Your task to perform on an android device: check storage Image 0: 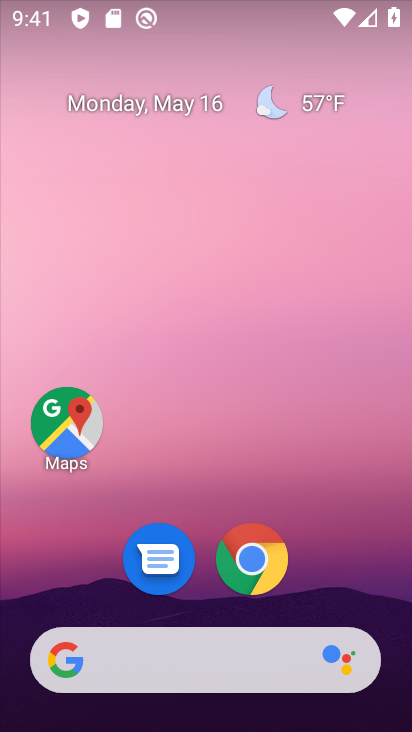
Step 0: drag from (327, 573) to (308, 93)
Your task to perform on an android device: check storage Image 1: 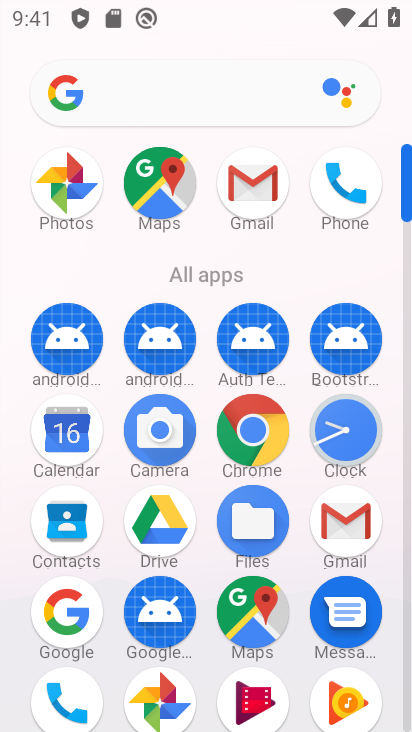
Step 1: drag from (301, 630) to (316, 218)
Your task to perform on an android device: check storage Image 2: 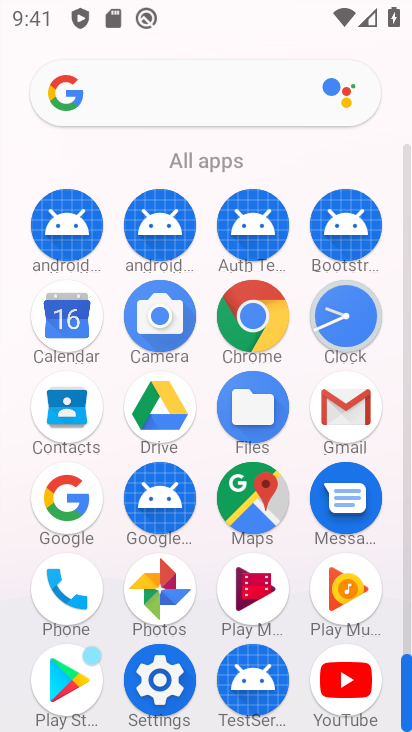
Step 2: click (172, 641)
Your task to perform on an android device: check storage Image 3: 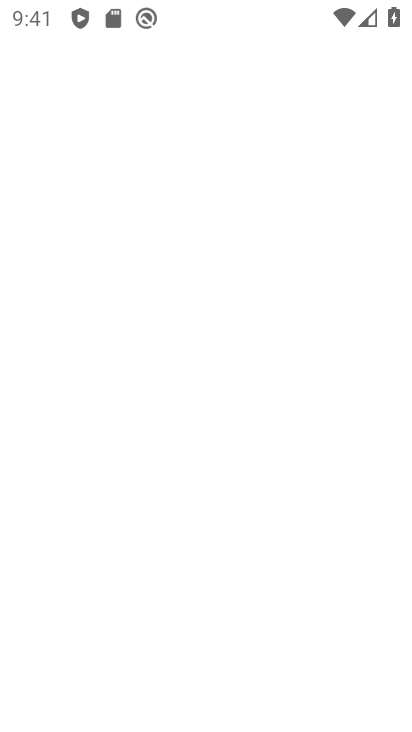
Step 3: press home button
Your task to perform on an android device: check storage Image 4: 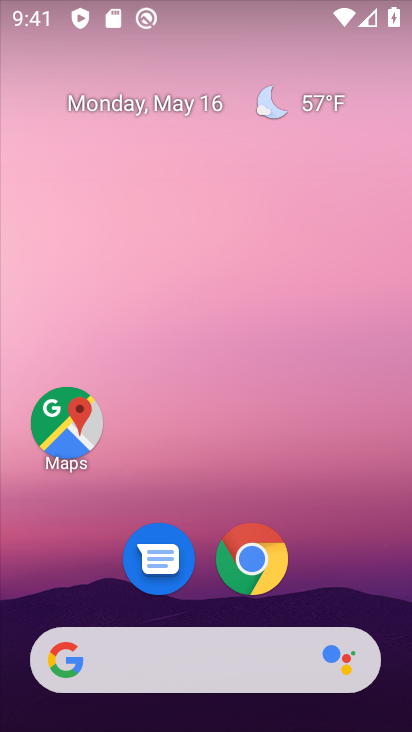
Step 4: drag from (345, 571) to (321, 162)
Your task to perform on an android device: check storage Image 5: 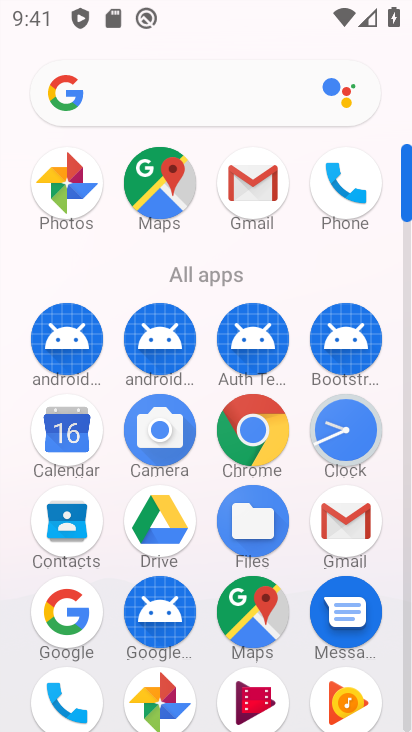
Step 5: drag from (211, 632) to (223, 285)
Your task to perform on an android device: check storage Image 6: 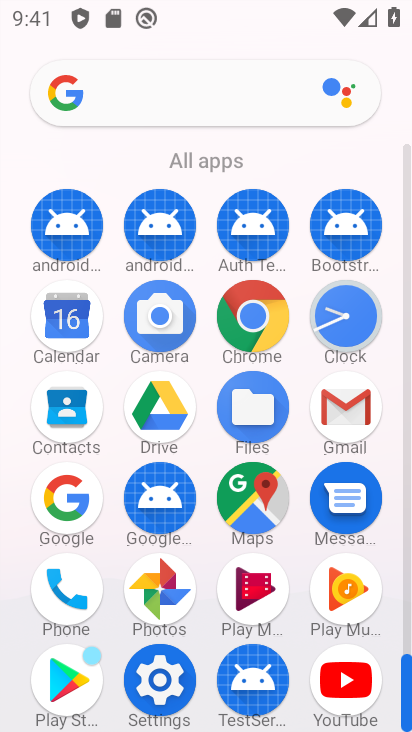
Step 6: click (169, 663)
Your task to perform on an android device: check storage Image 7: 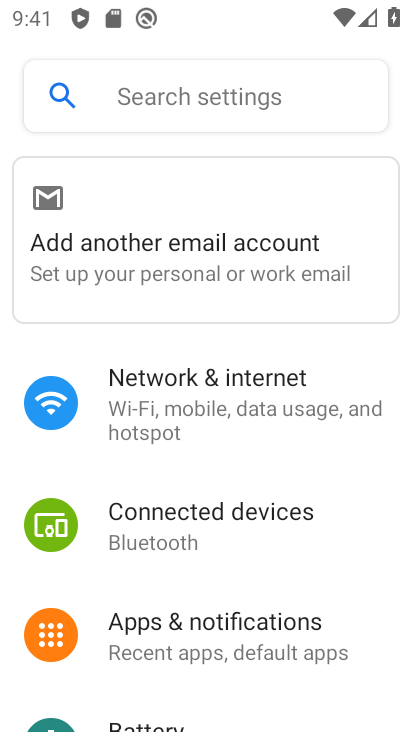
Step 7: drag from (257, 631) to (392, 210)
Your task to perform on an android device: check storage Image 8: 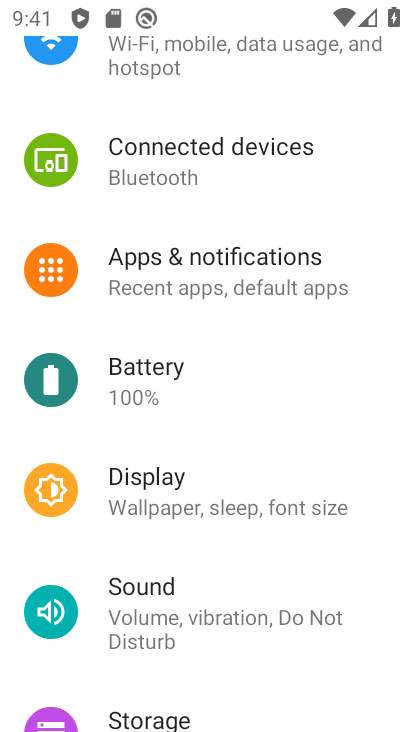
Step 8: click (146, 721)
Your task to perform on an android device: check storage Image 9: 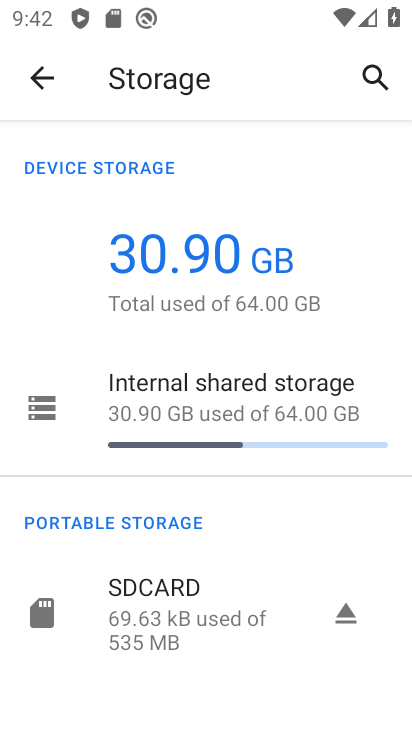
Step 9: task complete